Your task to perform on an android device: Go to notification settings Image 0: 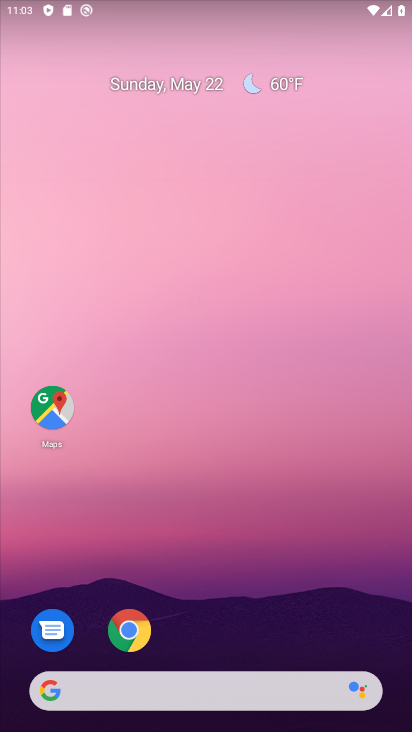
Step 0: drag from (269, 594) to (247, 188)
Your task to perform on an android device: Go to notification settings Image 1: 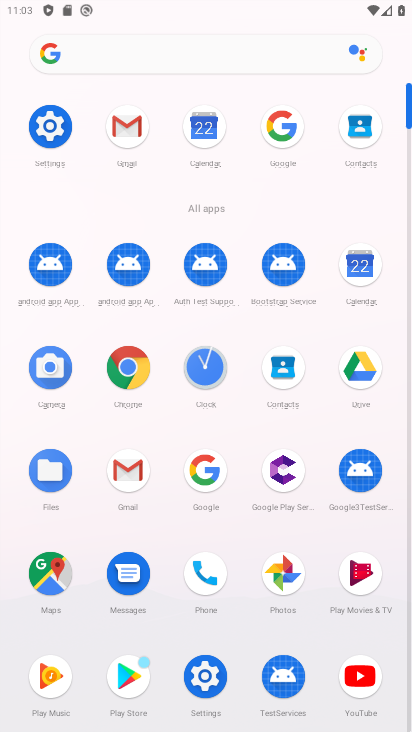
Step 1: click (52, 122)
Your task to perform on an android device: Go to notification settings Image 2: 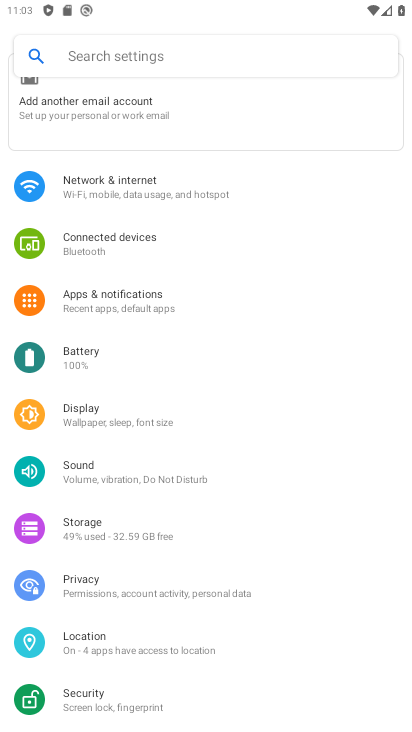
Step 2: click (113, 296)
Your task to perform on an android device: Go to notification settings Image 3: 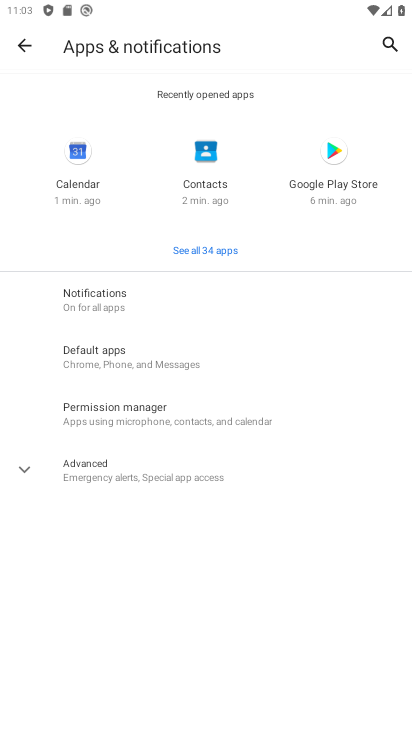
Step 3: click (84, 293)
Your task to perform on an android device: Go to notification settings Image 4: 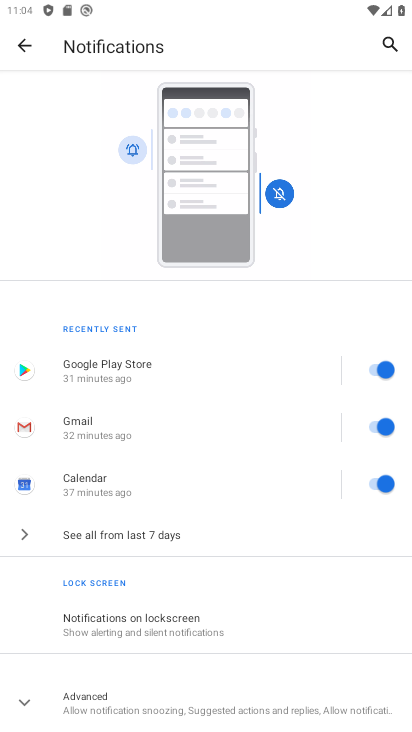
Step 4: task complete